Your task to perform on an android device: Go to Reddit.com Image 0: 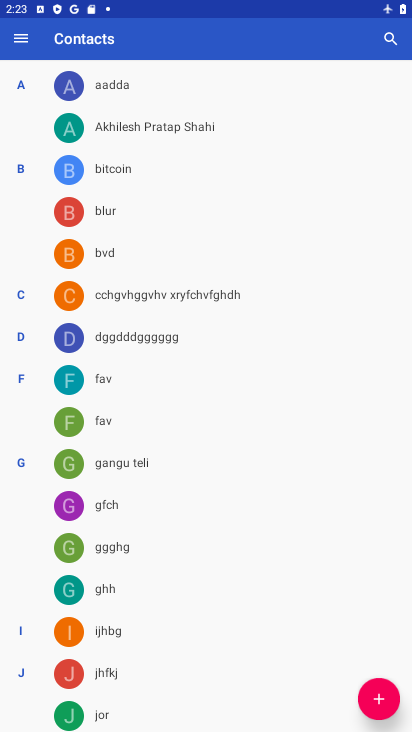
Step 0: press home button
Your task to perform on an android device: Go to Reddit.com Image 1: 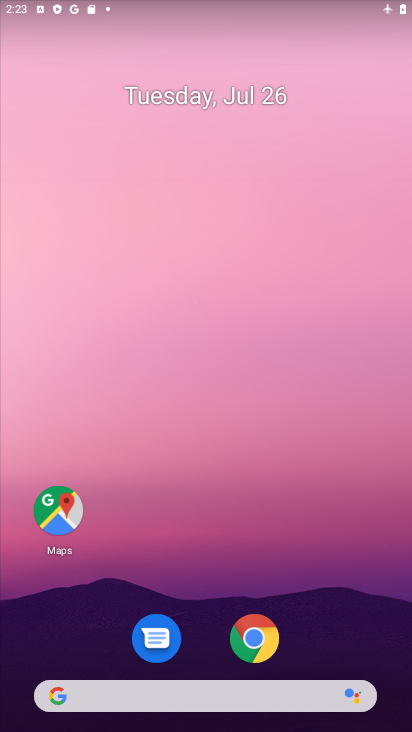
Step 1: click (223, 691)
Your task to perform on an android device: Go to Reddit.com Image 2: 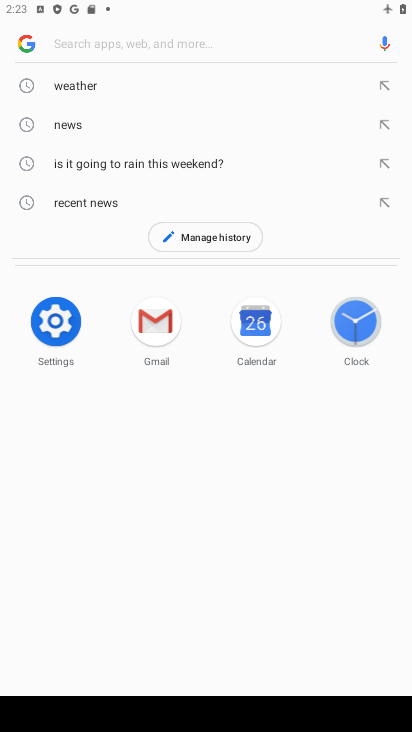
Step 2: type "reddit.com"
Your task to perform on an android device: Go to Reddit.com Image 3: 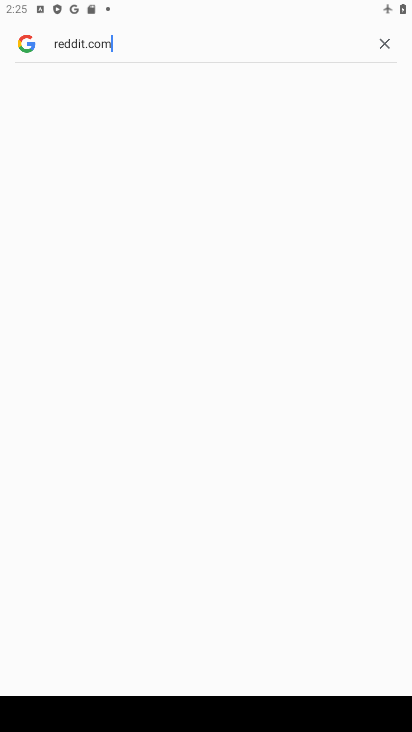
Step 3: task complete